Your task to perform on an android device: Open the calendar app, open the side menu, and click the "Day" option Image 0: 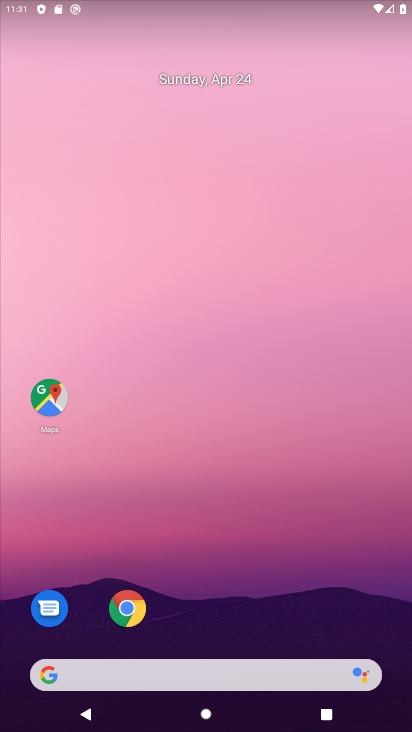
Step 0: drag from (222, 726) to (215, 124)
Your task to perform on an android device: Open the calendar app, open the side menu, and click the "Day" option Image 1: 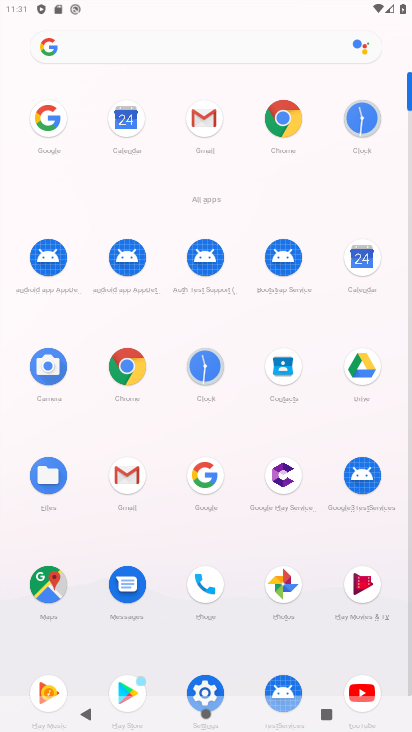
Step 1: click (364, 264)
Your task to perform on an android device: Open the calendar app, open the side menu, and click the "Day" option Image 2: 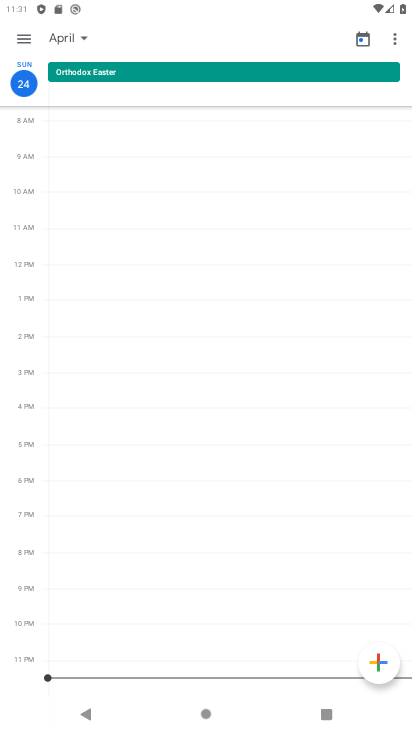
Step 2: click (23, 38)
Your task to perform on an android device: Open the calendar app, open the side menu, and click the "Day" option Image 3: 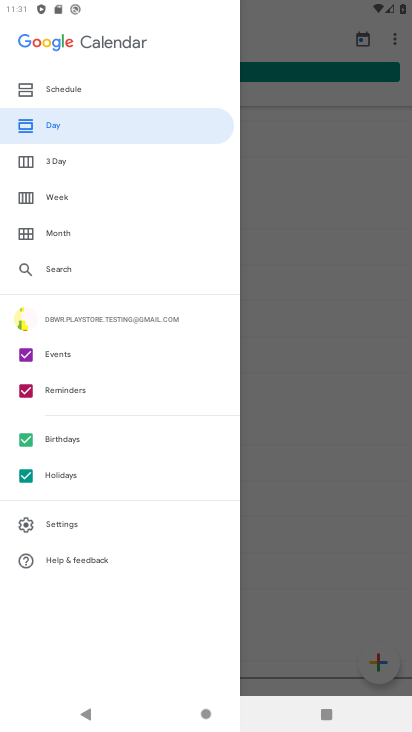
Step 3: click (68, 123)
Your task to perform on an android device: Open the calendar app, open the side menu, and click the "Day" option Image 4: 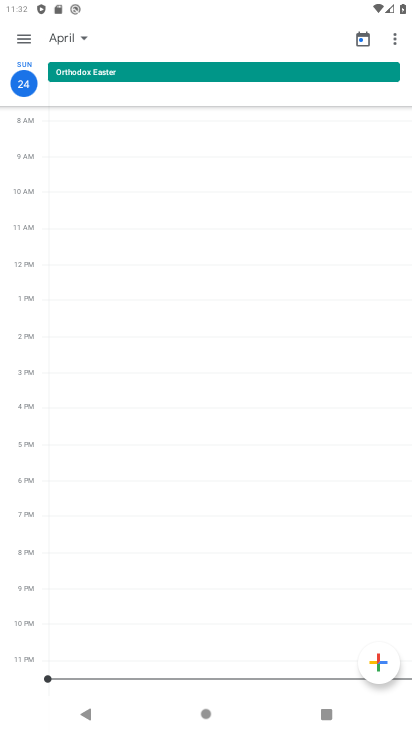
Step 4: task complete